Your task to perform on an android device: Open Chrome and go to the settings page Image 0: 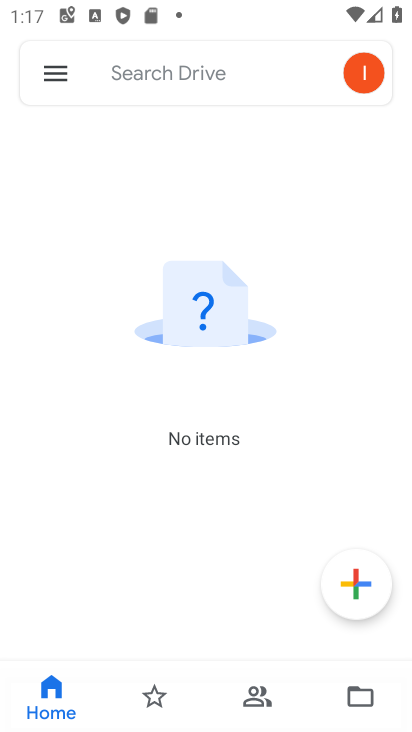
Step 0: press home button
Your task to perform on an android device: Open Chrome and go to the settings page Image 1: 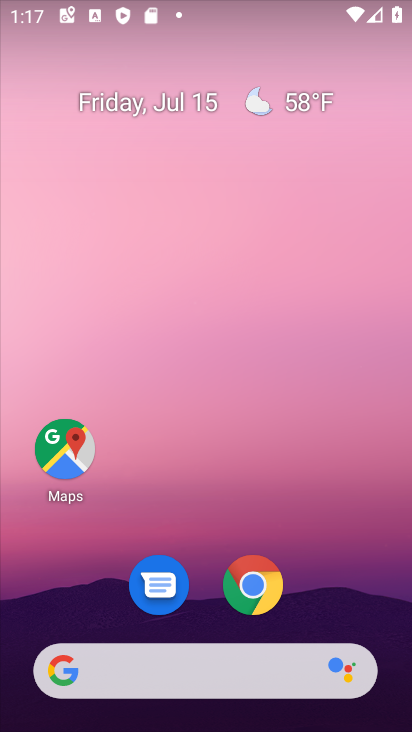
Step 1: click (268, 583)
Your task to perform on an android device: Open Chrome and go to the settings page Image 2: 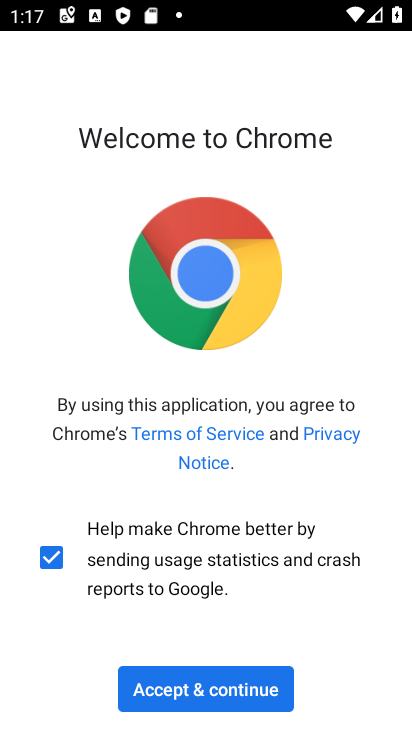
Step 2: click (231, 688)
Your task to perform on an android device: Open Chrome and go to the settings page Image 3: 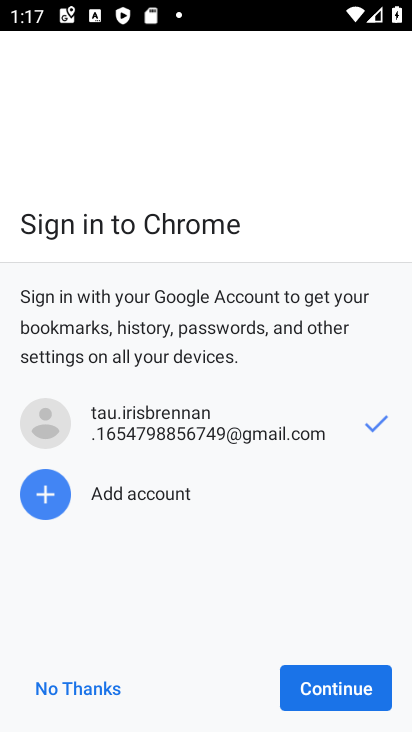
Step 3: click (363, 674)
Your task to perform on an android device: Open Chrome and go to the settings page Image 4: 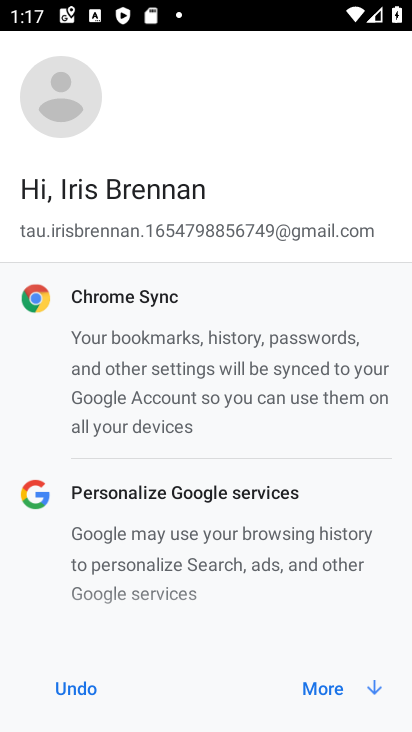
Step 4: click (334, 682)
Your task to perform on an android device: Open Chrome and go to the settings page Image 5: 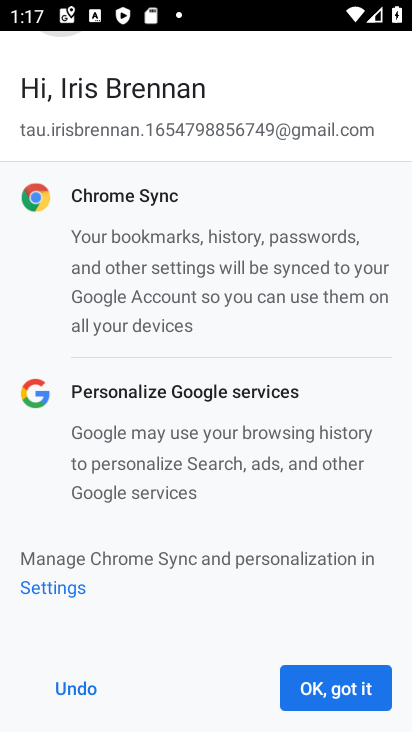
Step 5: click (334, 682)
Your task to perform on an android device: Open Chrome and go to the settings page Image 6: 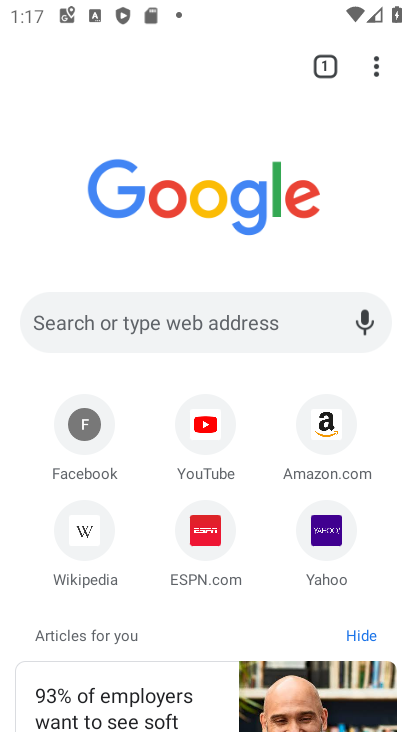
Step 6: click (375, 76)
Your task to perform on an android device: Open Chrome and go to the settings page Image 7: 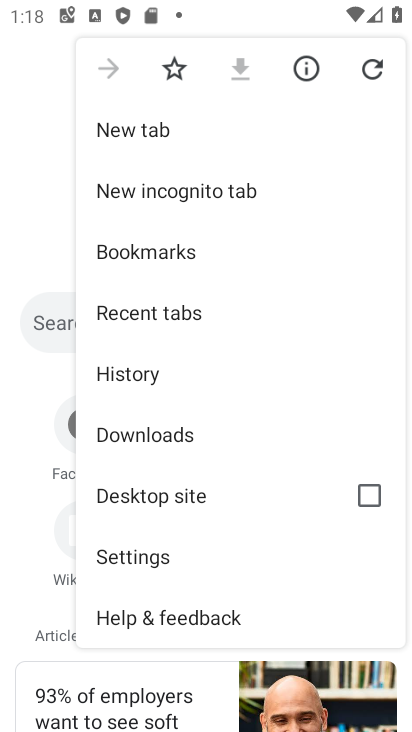
Step 7: click (197, 556)
Your task to perform on an android device: Open Chrome and go to the settings page Image 8: 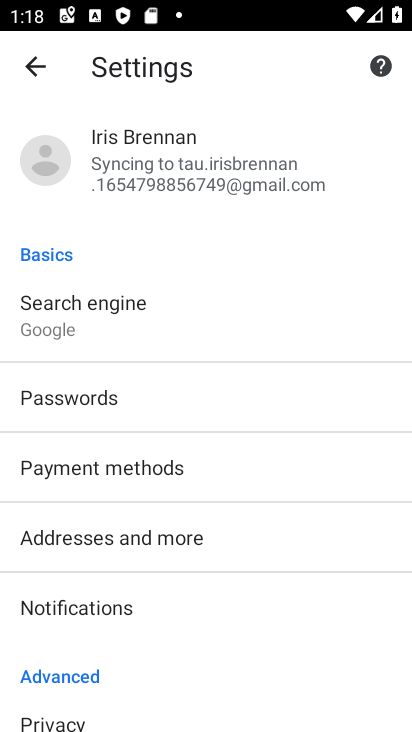
Step 8: task complete